Your task to perform on an android device: turn off translation in the chrome app Image 0: 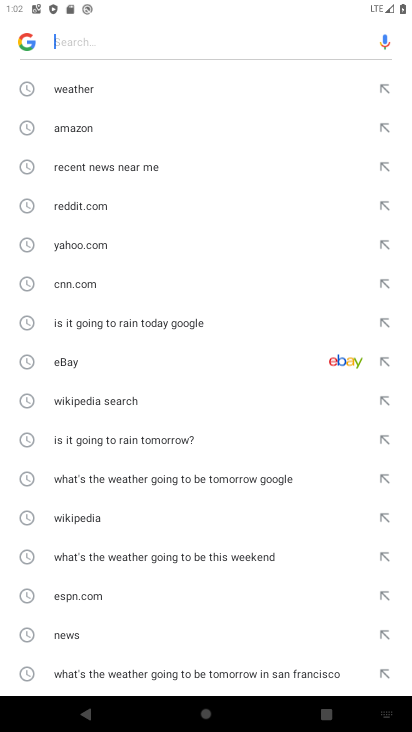
Step 0: press back button
Your task to perform on an android device: turn off translation in the chrome app Image 1: 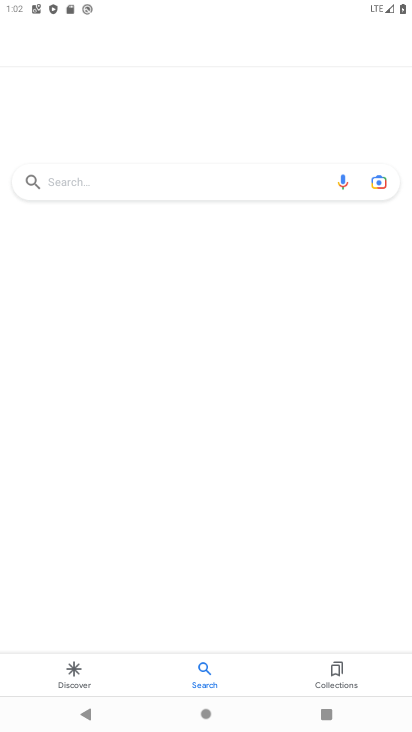
Step 1: press back button
Your task to perform on an android device: turn off translation in the chrome app Image 2: 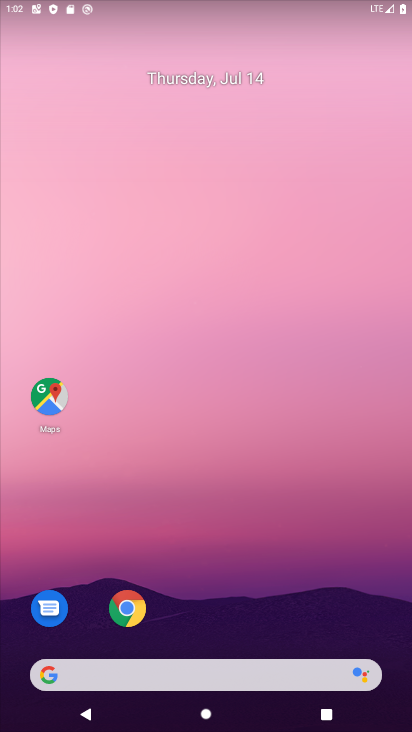
Step 2: drag from (7, 635) to (313, 69)
Your task to perform on an android device: turn off translation in the chrome app Image 3: 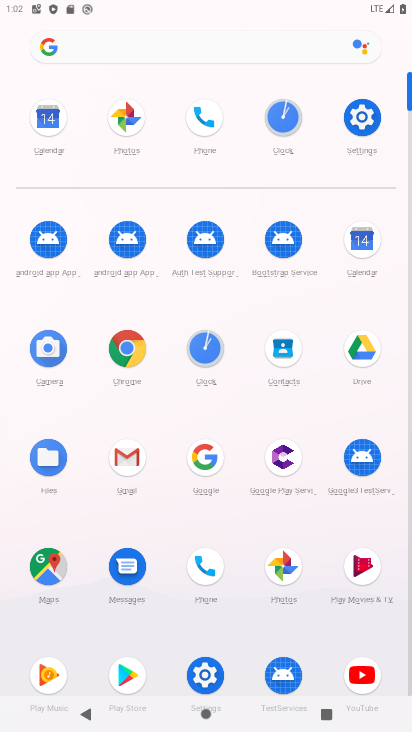
Step 3: click (140, 359)
Your task to perform on an android device: turn off translation in the chrome app Image 4: 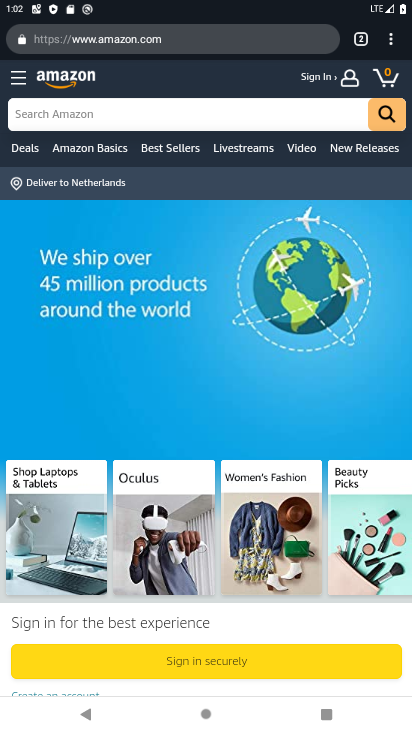
Step 4: click (393, 41)
Your task to perform on an android device: turn off translation in the chrome app Image 5: 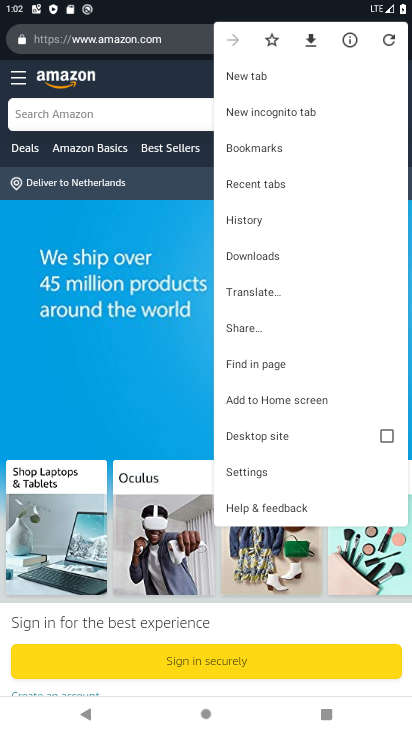
Step 5: click (264, 475)
Your task to perform on an android device: turn off translation in the chrome app Image 6: 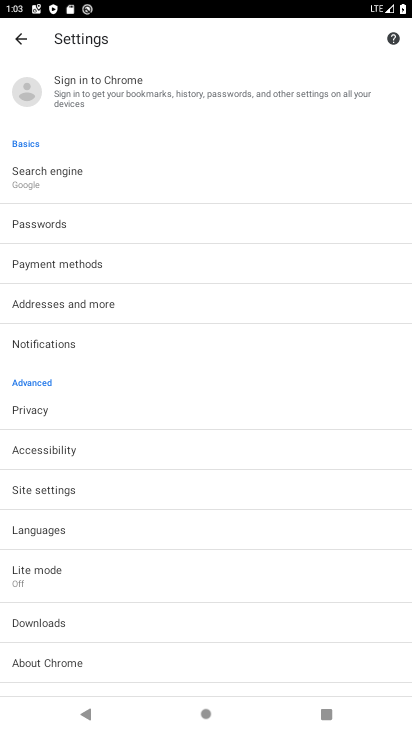
Step 6: click (57, 531)
Your task to perform on an android device: turn off translation in the chrome app Image 7: 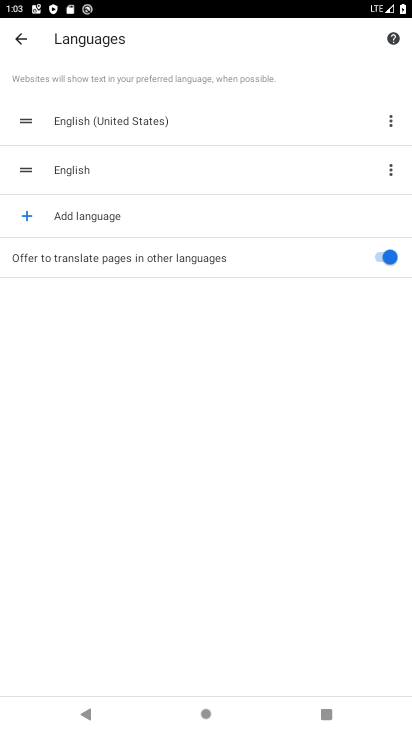
Step 7: click (387, 257)
Your task to perform on an android device: turn off translation in the chrome app Image 8: 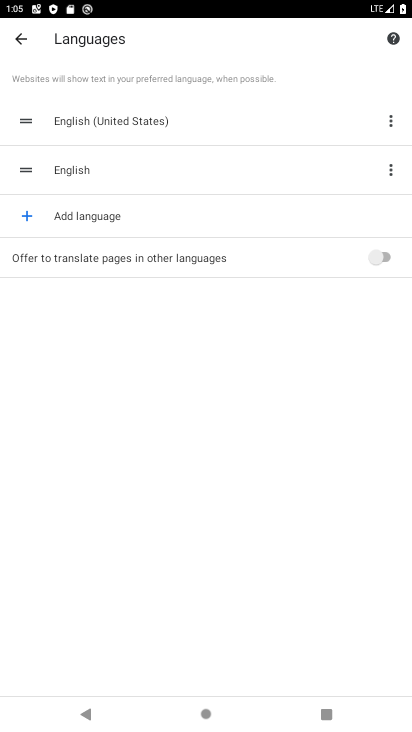
Step 8: task complete